Your task to perform on an android device: change the clock style Image 0: 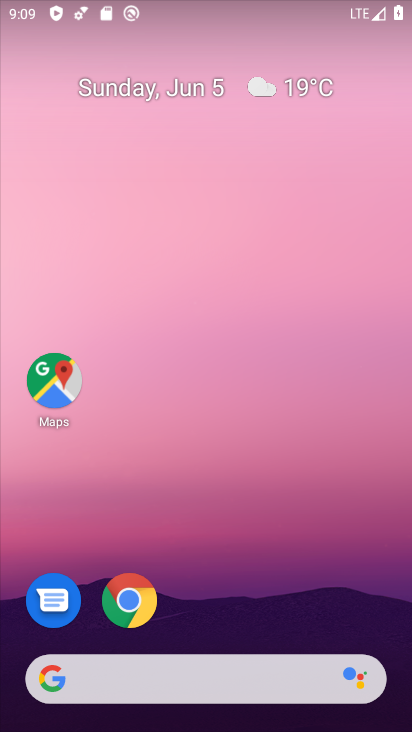
Step 0: drag from (261, 600) to (265, 269)
Your task to perform on an android device: change the clock style Image 1: 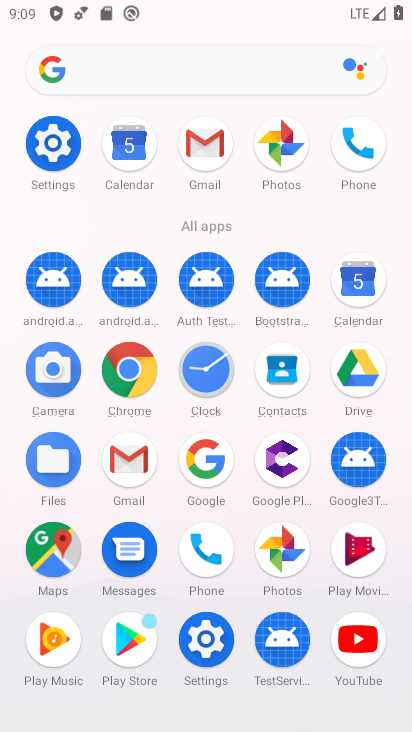
Step 1: click (214, 376)
Your task to perform on an android device: change the clock style Image 2: 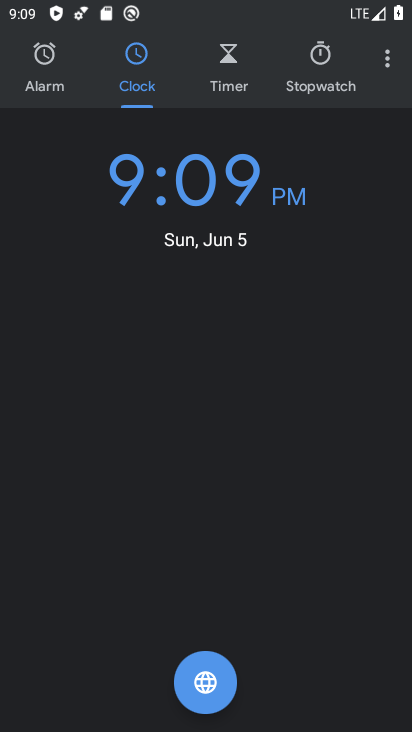
Step 2: click (383, 73)
Your task to perform on an android device: change the clock style Image 3: 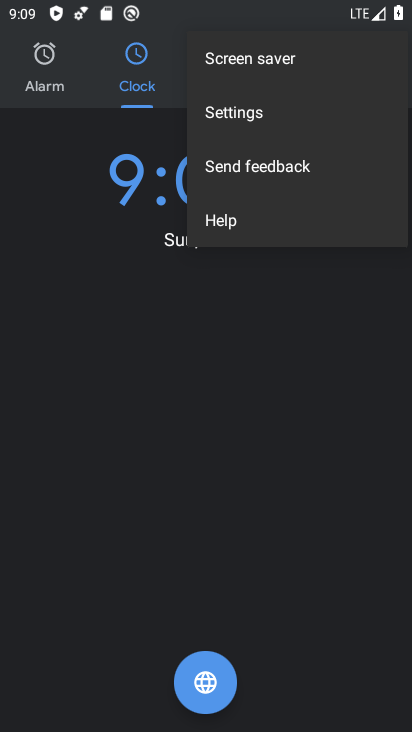
Step 3: click (324, 113)
Your task to perform on an android device: change the clock style Image 4: 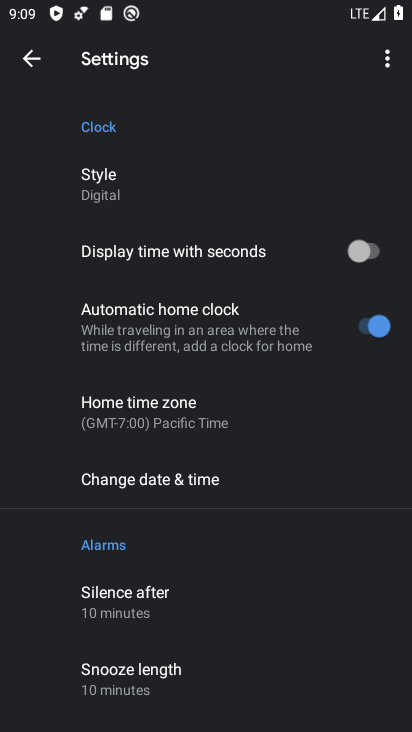
Step 4: click (199, 193)
Your task to perform on an android device: change the clock style Image 5: 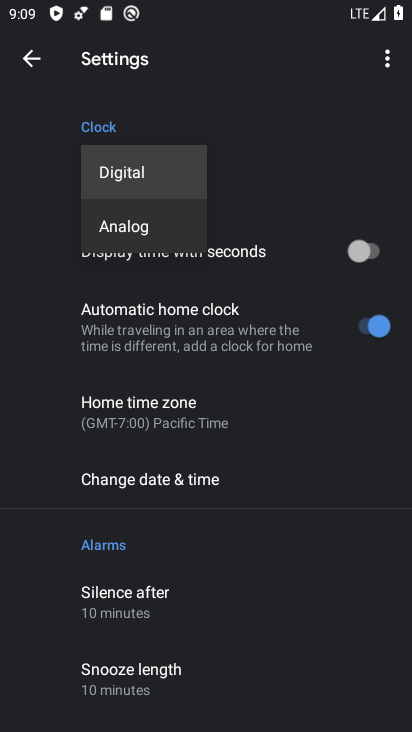
Step 5: click (184, 224)
Your task to perform on an android device: change the clock style Image 6: 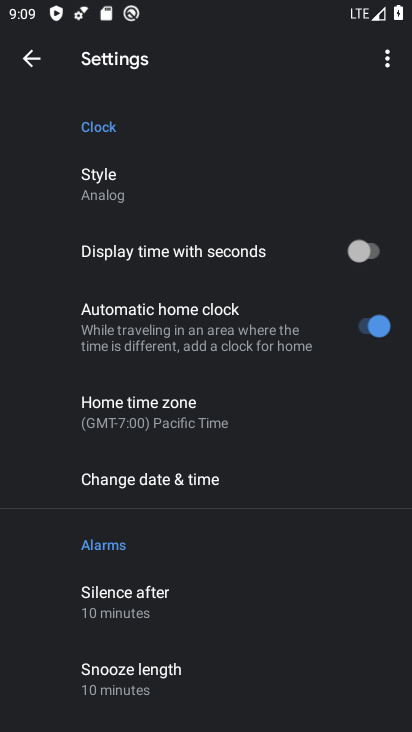
Step 6: task complete